Your task to perform on an android device: Open Chrome and go to settings Image 0: 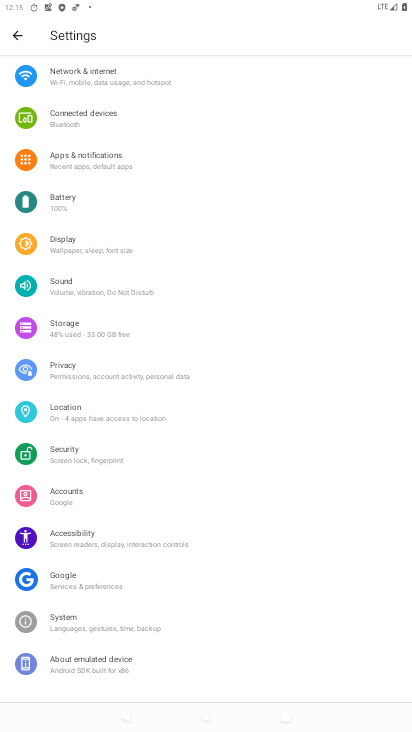
Step 0: press home button
Your task to perform on an android device: Open Chrome and go to settings Image 1: 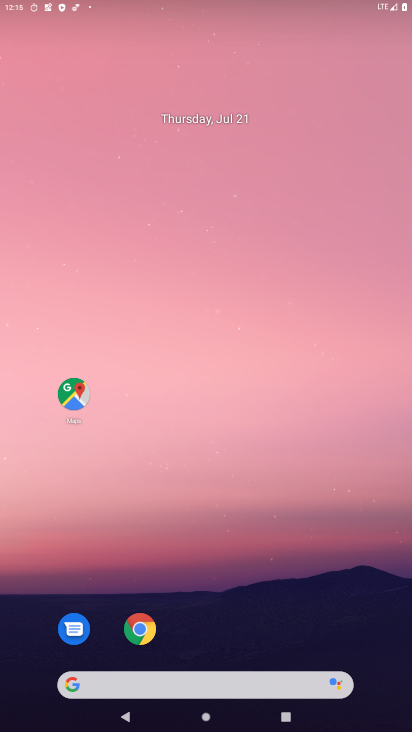
Step 1: drag from (248, 692) to (200, 19)
Your task to perform on an android device: Open Chrome and go to settings Image 2: 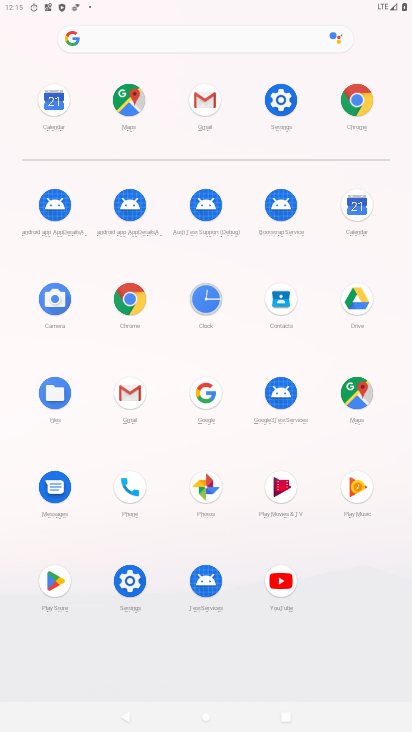
Step 2: click (135, 306)
Your task to perform on an android device: Open Chrome and go to settings Image 3: 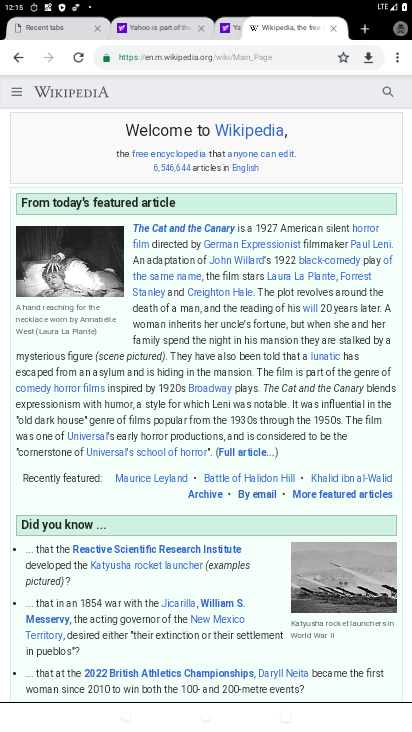
Step 3: task complete